Your task to perform on an android device: open chrome privacy settings Image 0: 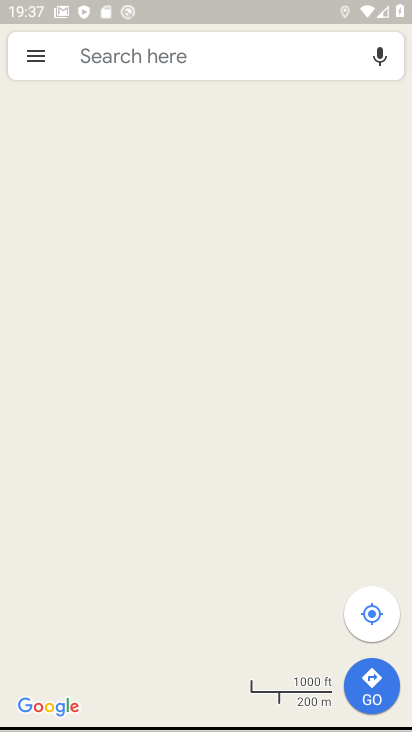
Step 0: press home button
Your task to perform on an android device: open chrome privacy settings Image 1: 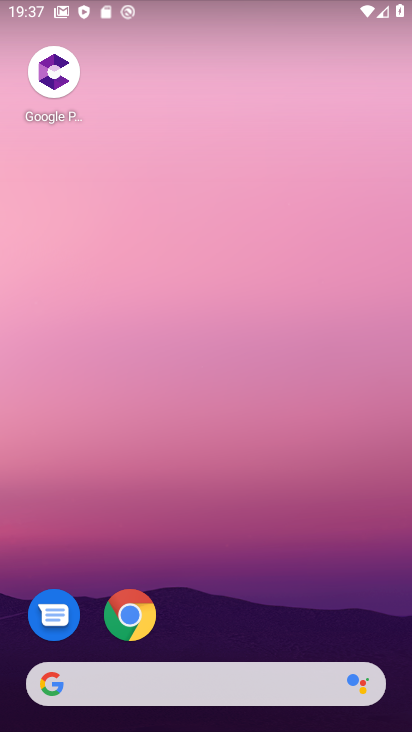
Step 1: drag from (314, 590) to (228, 24)
Your task to perform on an android device: open chrome privacy settings Image 2: 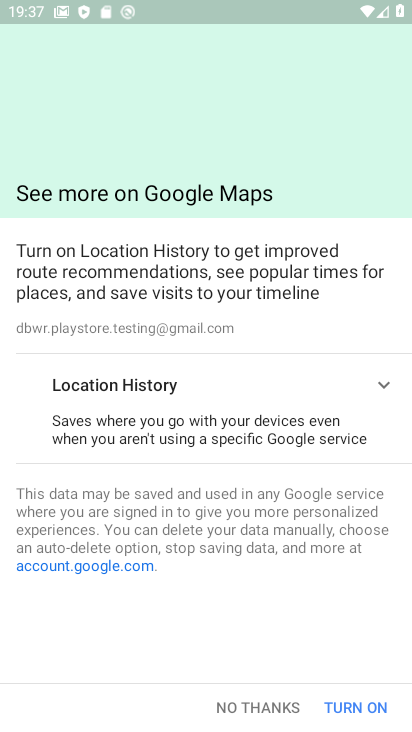
Step 2: press home button
Your task to perform on an android device: open chrome privacy settings Image 3: 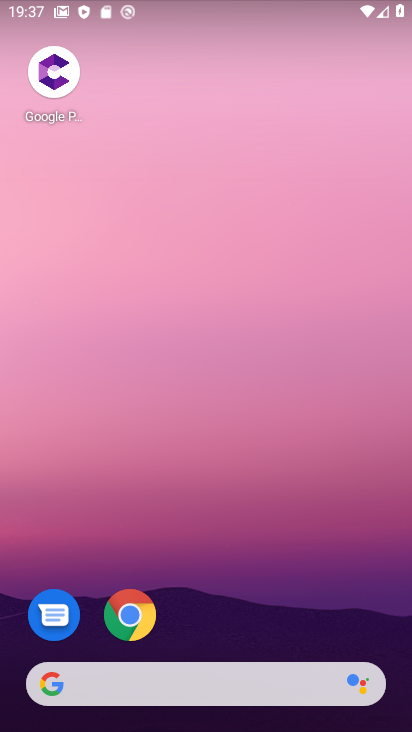
Step 3: click (142, 614)
Your task to perform on an android device: open chrome privacy settings Image 4: 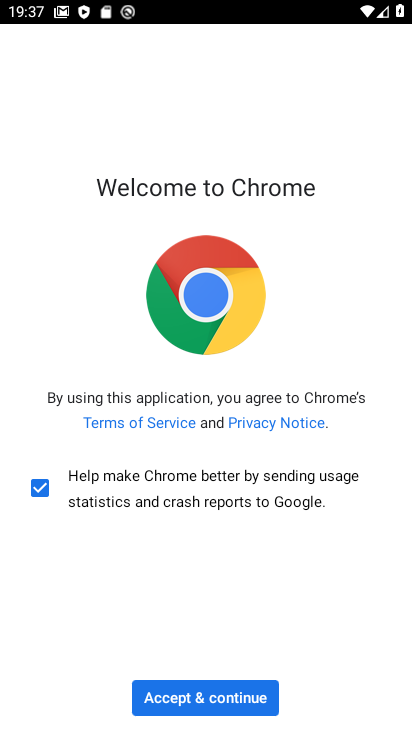
Step 4: click (183, 693)
Your task to perform on an android device: open chrome privacy settings Image 5: 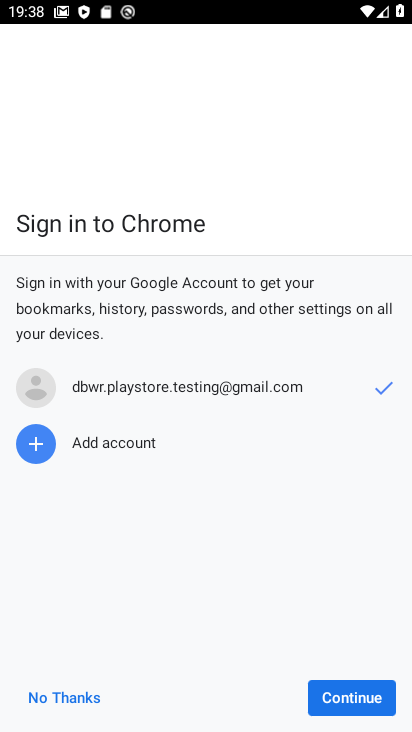
Step 5: click (342, 690)
Your task to perform on an android device: open chrome privacy settings Image 6: 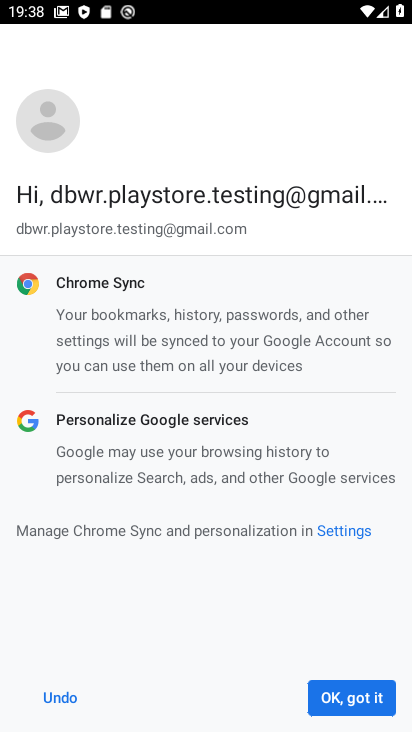
Step 6: click (342, 690)
Your task to perform on an android device: open chrome privacy settings Image 7: 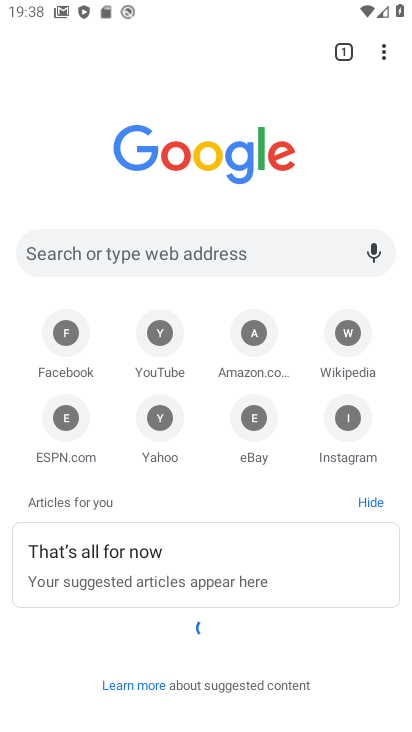
Step 7: task complete